Your task to perform on an android device: Open accessibility settings Image 0: 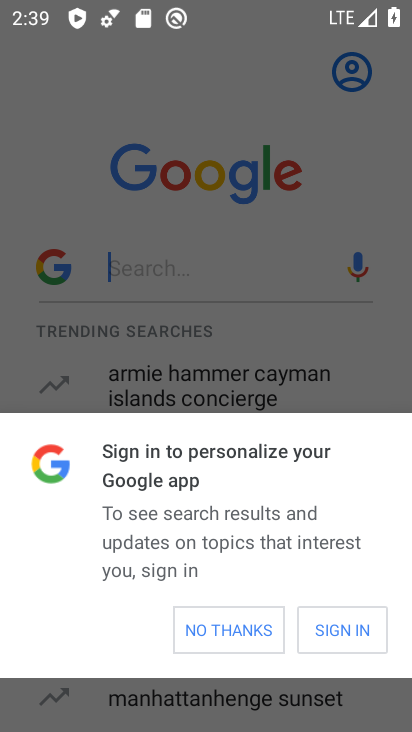
Step 0: press home button
Your task to perform on an android device: Open accessibility settings Image 1: 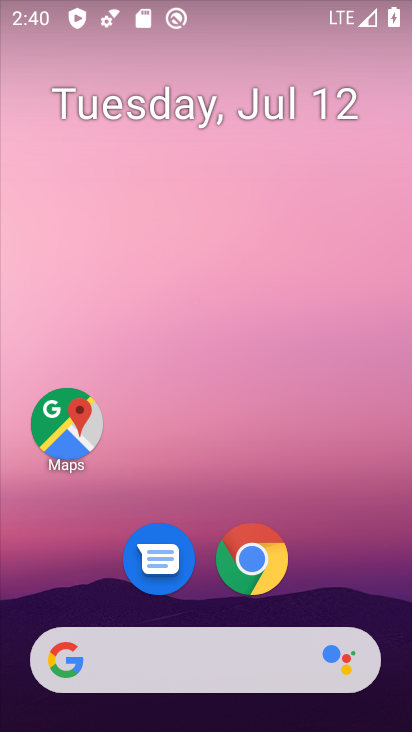
Step 1: drag from (369, 590) to (364, 240)
Your task to perform on an android device: Open accessibility settings Image 2: 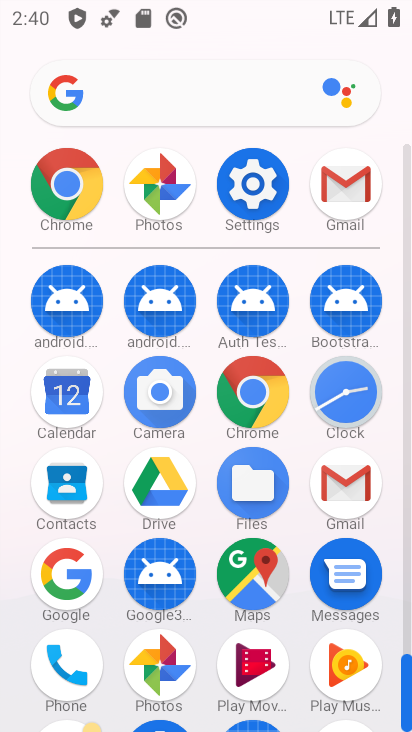
Step 2: click (257, 201)
Your task to perform on an android device: Open accessibility settings Image 3: 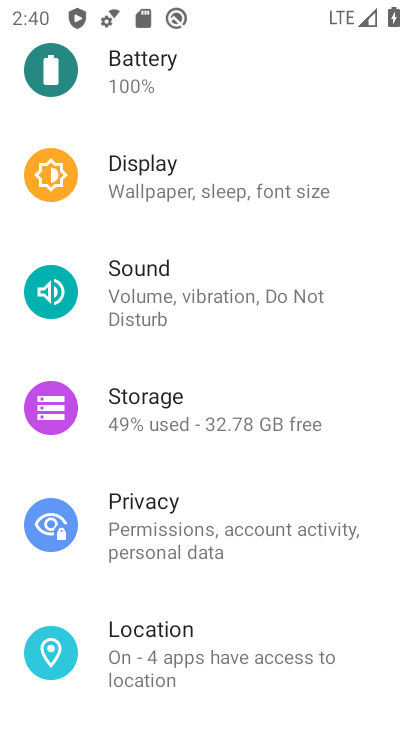
Step 3: drag from (346, 269) to (347, 337)
Your task to perform on an android device: Open accessibility settings Image 4: 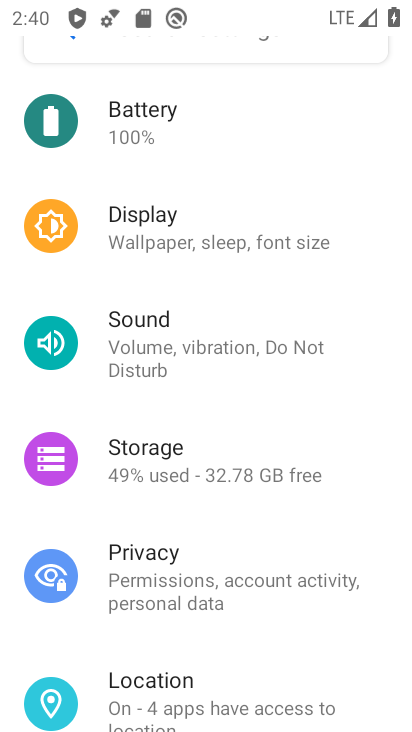
Step 4: drag from (347, 264) to (349, 332)
Your task to perform on an android device: Open accessibility settings Image 5: 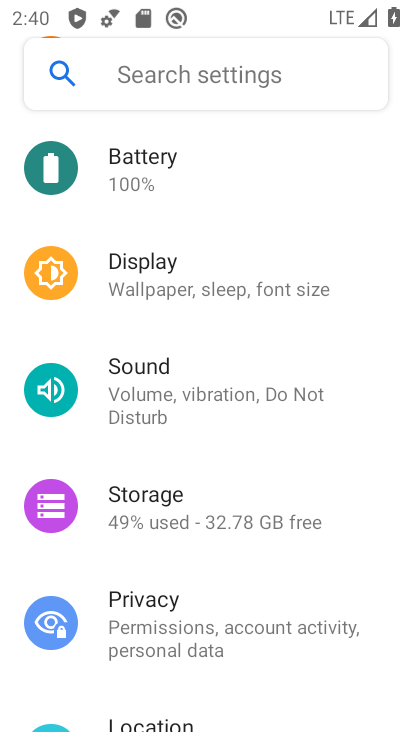
Step 5: drag from (359, 249) to (363, 330)
Your task to perform on an android device: Open accessibility settings Image 6: 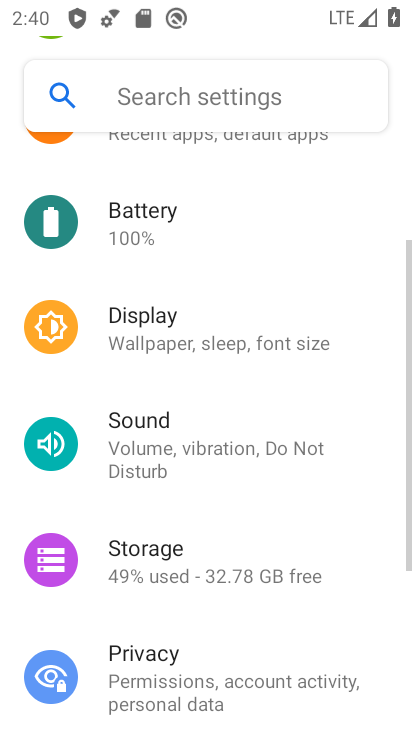
Step 6: drag from (357, 260) to (366, 340)
Your task to perform on an android device: Open accessibility settings Image 7: 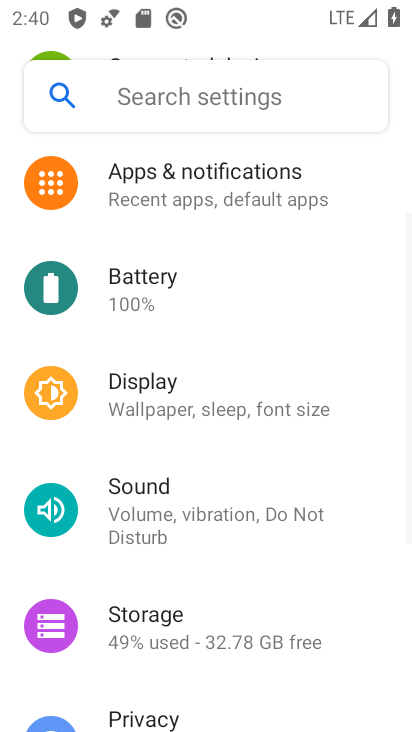
Step 7: drag from (369, 265) to (375, 350)
Your task to perform on an android device: Open accessibility settings Image 8: 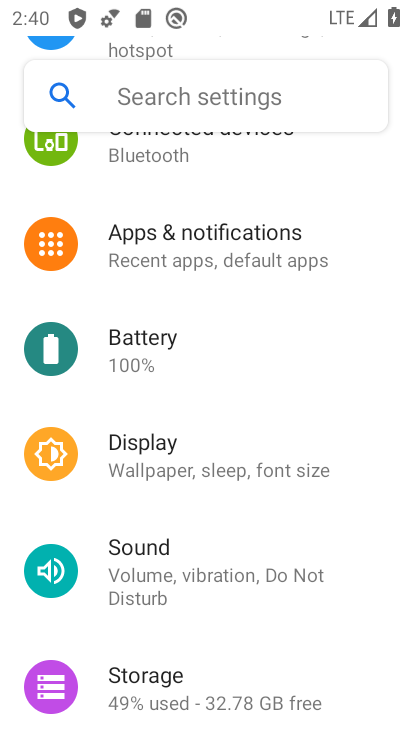
Step 8: drag from (370, 266) to (371, 355)
Your task to perform on an android device: Open accessibility settings Image 9: 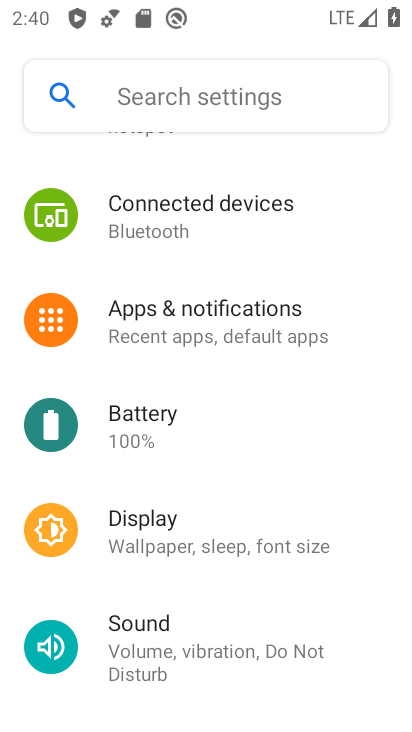
Step 9: drag from (361, 267) to (370, 369)
Your task to perform on an android device: Open accessibility settings Image 10: 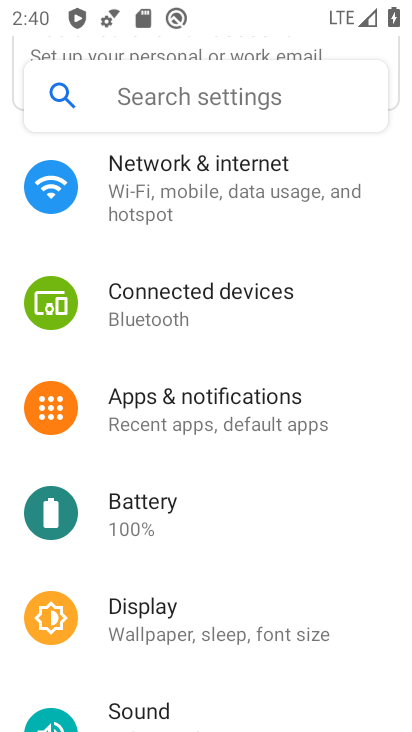
Step 10: drag from (361, 436) to (367, 347)
Your task to perform on an android device: Open accessibility settings Image 11: 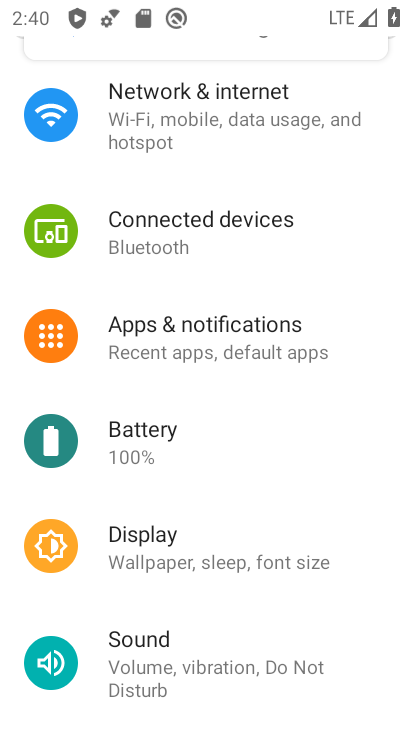
Step 11: drag from (369, 432) to (373, 376)
Your task to perform on an android device: Open accessibility settings Image 12: 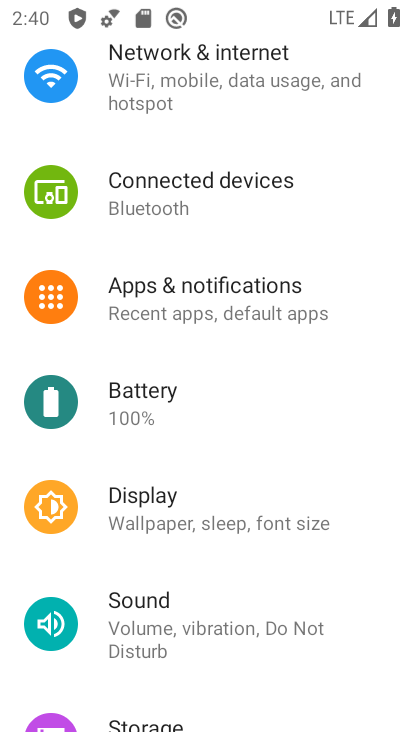
Step 12: drag from (367, 448) to (374, 396)
Your task to perform on an android device: Open accessibility settings Image 13: 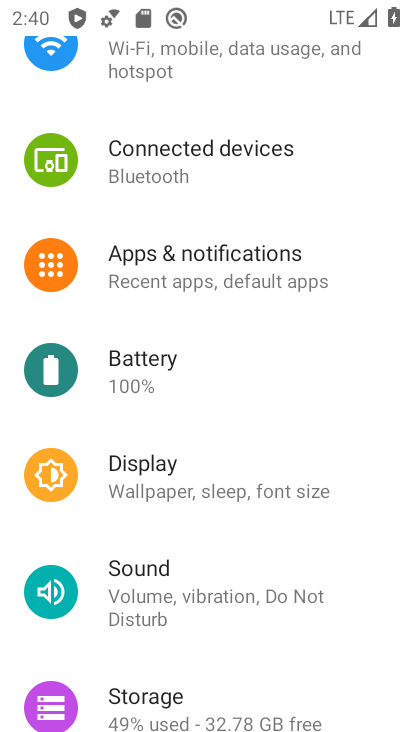
Step 13: drag from (361, 497) to (370, 417)
Your task to perform on an android device: Open accessibility settings Image 14: 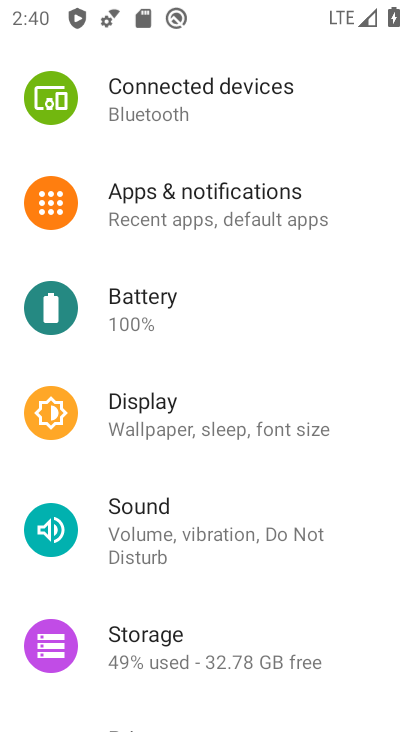
Step 14: drag from (371, 502) to (360, 367)
Your task to perform on an android device: Open accessibility settings Image 15: 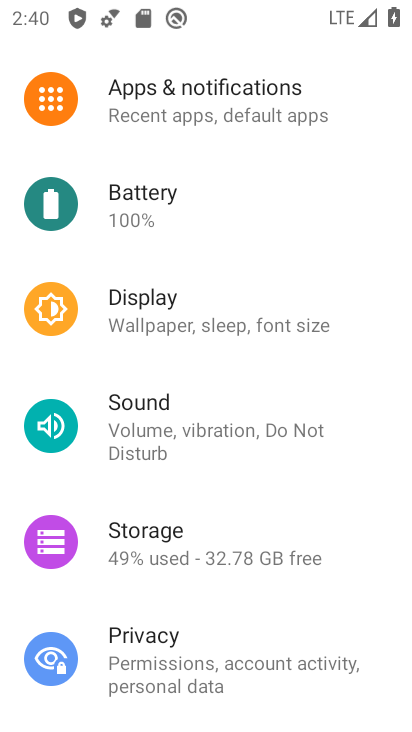
Step 15: drag from (333, 584) to (338, 391)
Your task to perform on an android device: Open accessibility settings Image 16: 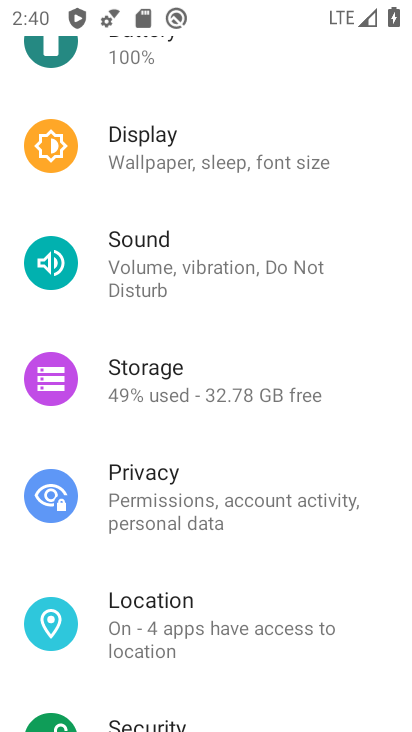
Step 16: drag from (349, 571) to (361, 421)
Your task to perform on an android device: Open accessibility settings Image 17: 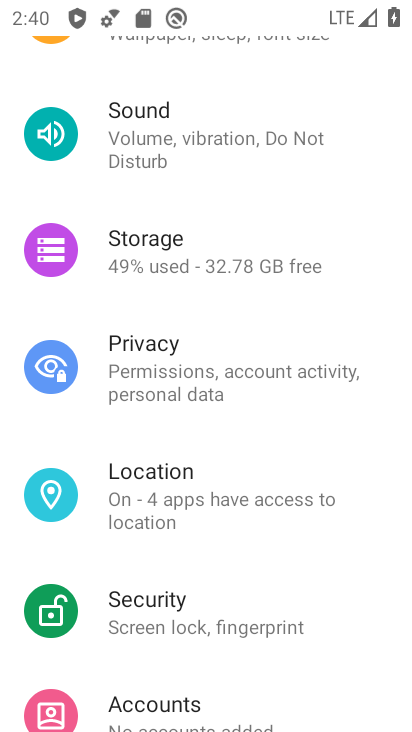
Step 17: drag from (371, 569) to (375, 475)
Your task to perform on an android device: Open accessibility settings Image 18: 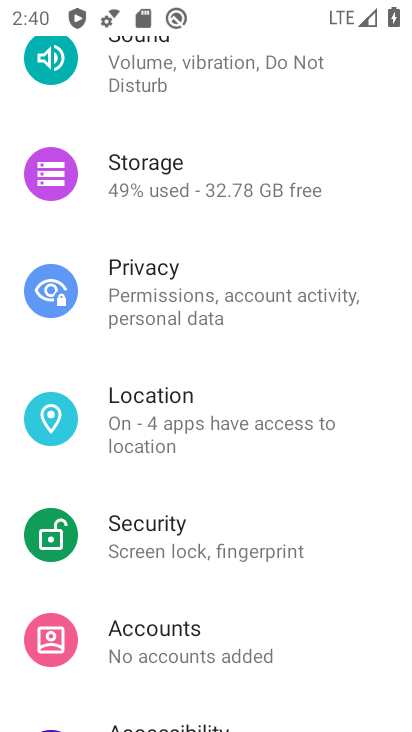
Step 18: drag from (351, 576) to (348, 432)
Your task to perform on an android device: Open accessibility settings Image 19: 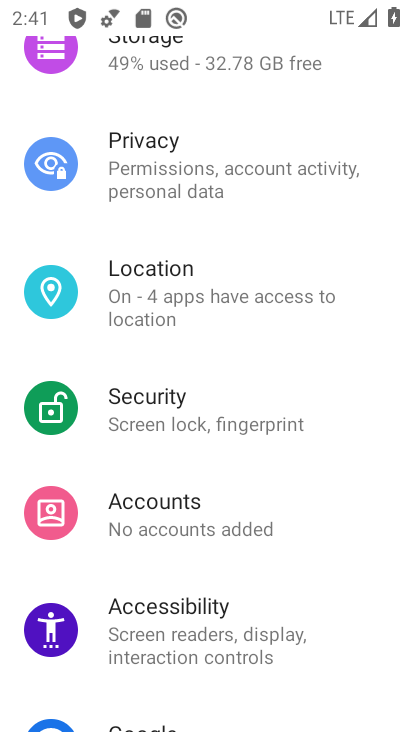
Step 19: drag from (349, 563) to (349, 463)
Your task to perform on an android device: Open accessibility settings Image 20: 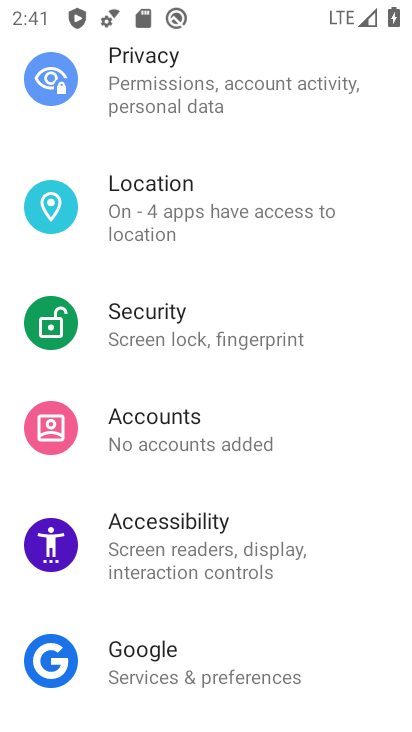
Step 20: click (326, 543)
Your task to perform on an android device: Open accessibility settings Image 21: 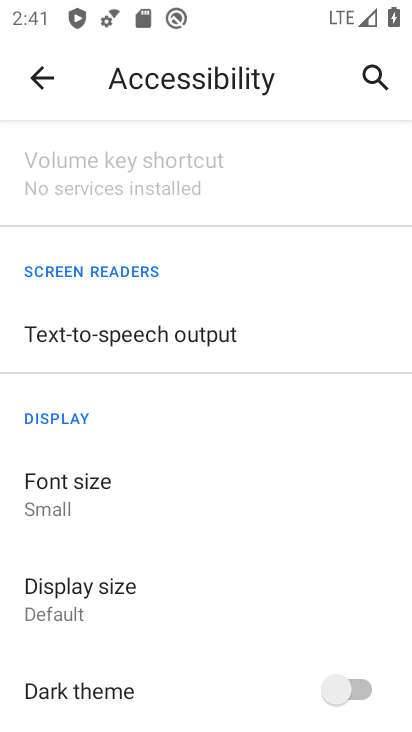
Step 21: task complete